Your task to perform on an android device: Open network settings Image 0: 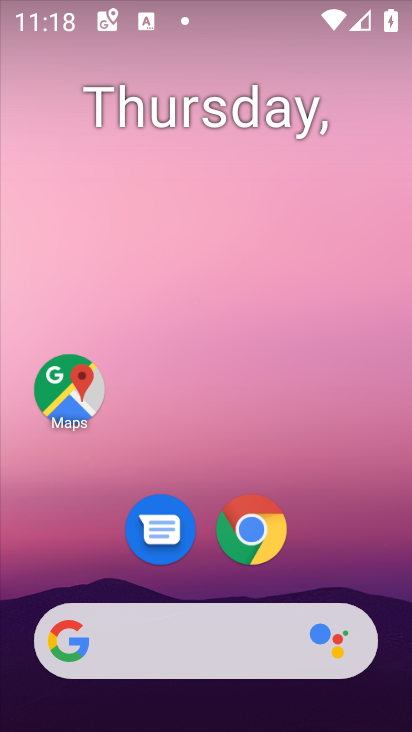
Step 0: drag from (218, 688) to (363, 93)
Your task to perform on an android device: Open network settings Image 1: 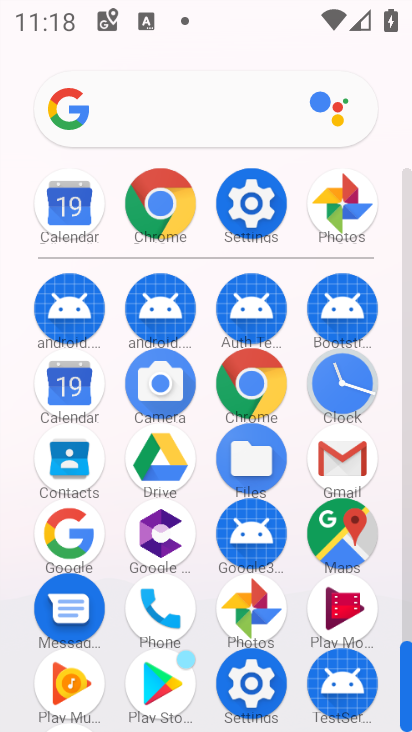
Step 1: click (260, 213)
Your task to perform on an android device: Open network settings Image 2: 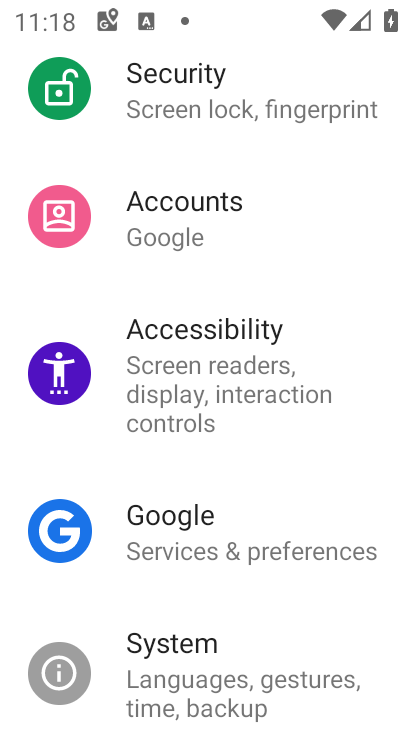
Step 2: drag from (273, 353) to (252, 654)
Your task to perform on an android device: Open network settings Image 3: 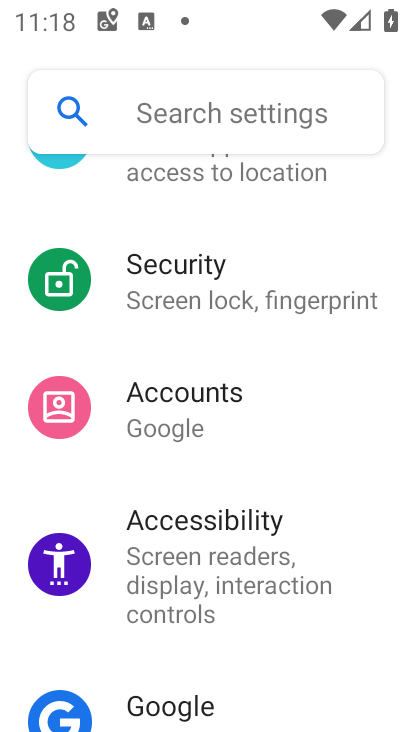
Step 3: drag from (266, 381) to (289, 729)
Your task to perform on an android device: Open network settings Image 4: 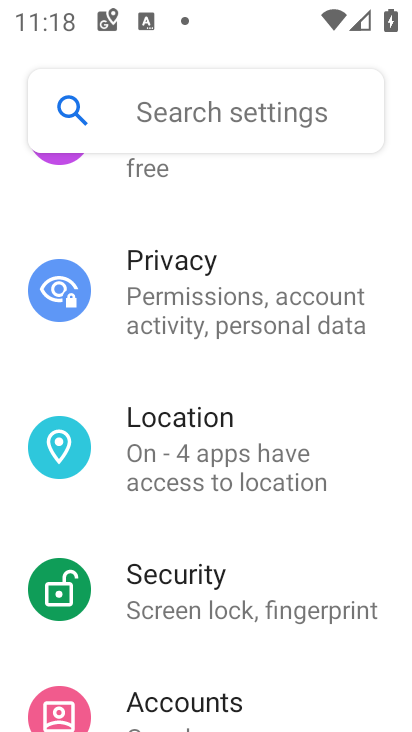
Step 4: drag from (282, 403) to (293, 728)
Your task to perform on an android device: Open network settings Image 5: 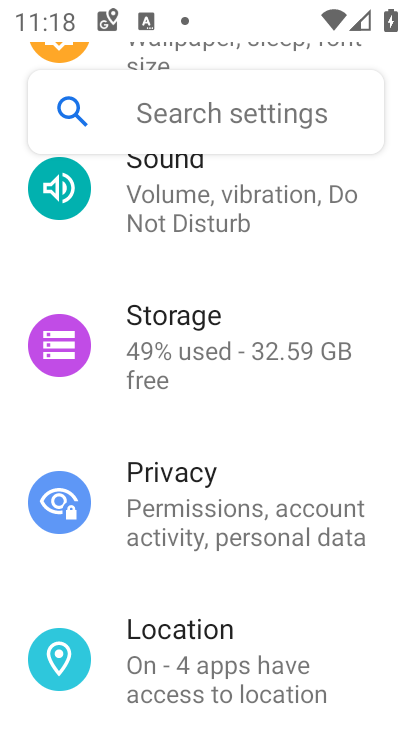
Step 5: drag from (280, 430) to (214, 719)
Your task to perform on an android device: Open network settings Image 6: 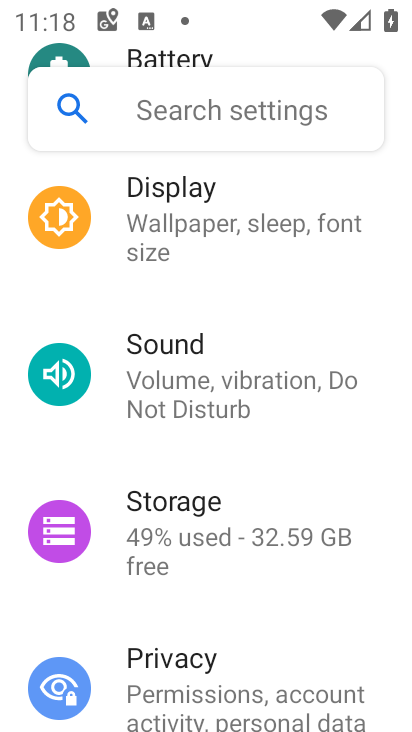
Step 6: drag from (216, 458) to (203, 717)
Your task to perform on an android device: Open network settings Image 7: 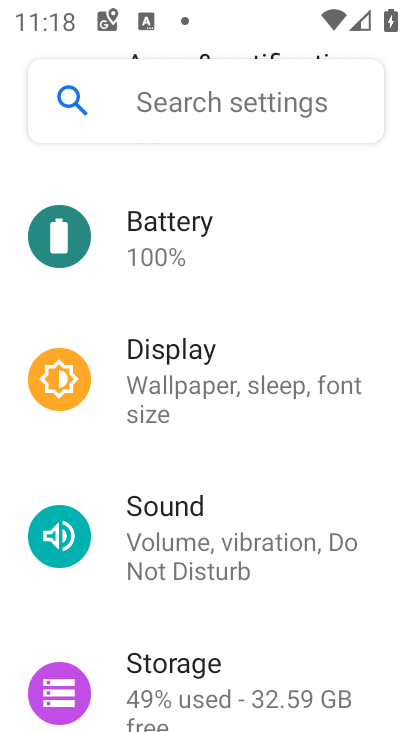
Step 7: drag from (229, 440) to (244, 711)
Your task to perform on an android device: Open network settings Image 8: 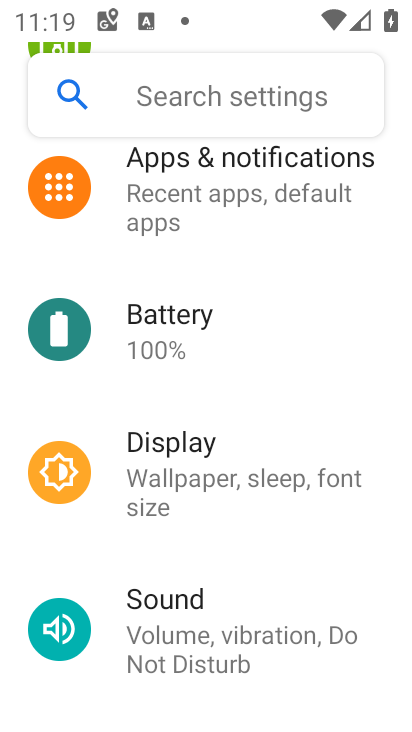
Step 8: drag from (229, 337) to (245, 653)
Your task to perform on an android device: Open network settings Image 9: 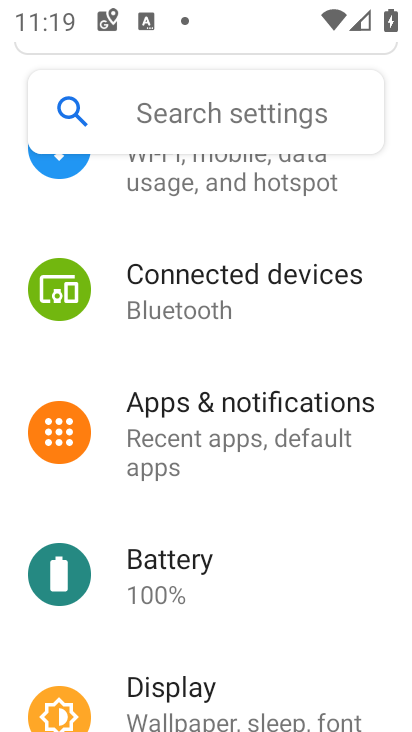
Step 9: drag from (248, 359) to (262, 679)
Your task to perform on an android device: Open network settings Image 10: 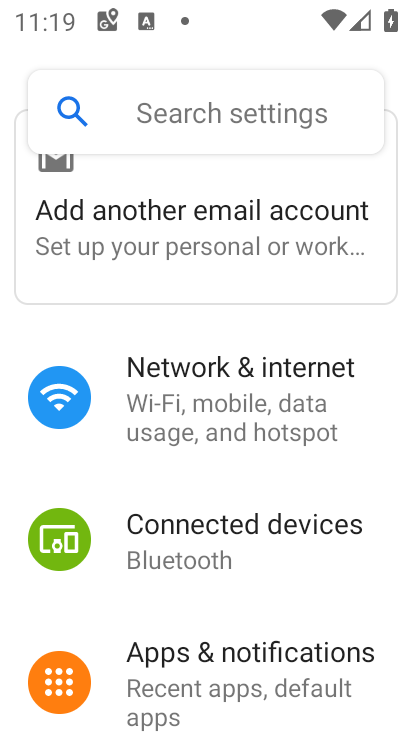
Step 10: drag from (251, 366) to (267, 599)
Your task to perform on an android device: Open network settings Image 11: 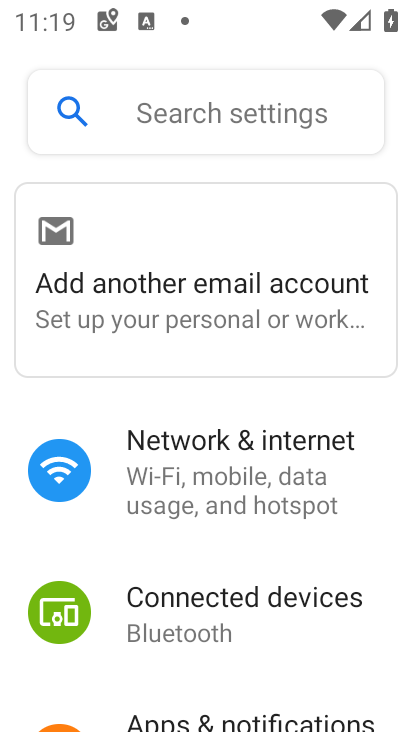
Step 11: click (289, 485)
Your task to perform on an android device: Open network settings Image 12: 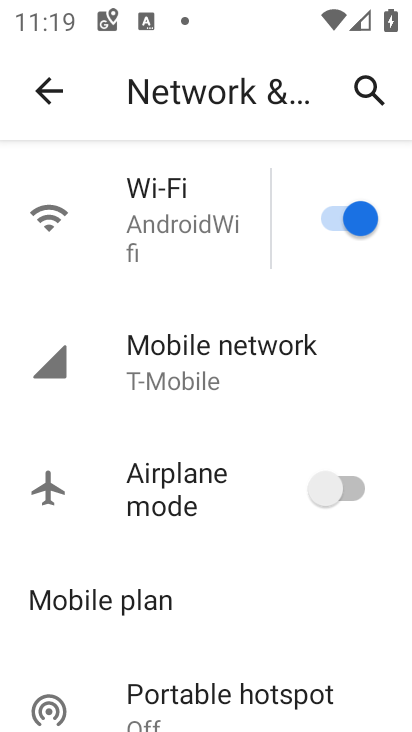
Step 12: click (228, 383)
Your task to perform on an android device: Open network settings Image 13: 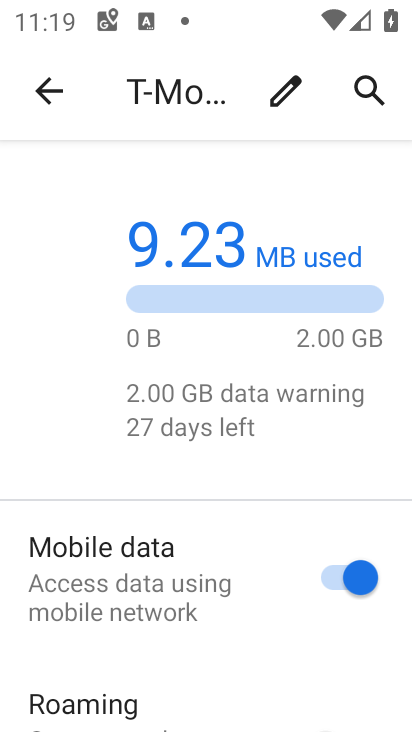
Step 13: press home button
Your task to perform on an android device: Open network settings Image 14: 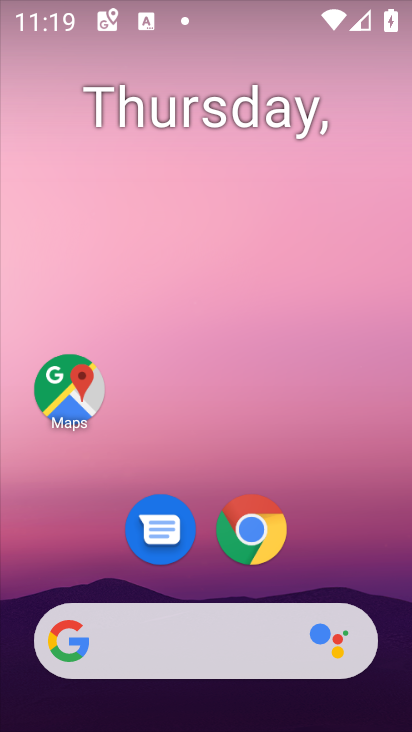
Step 14: drag from (243, 626) to (361, 41)
Your task to perform on an android device: Open network settings Image 15: 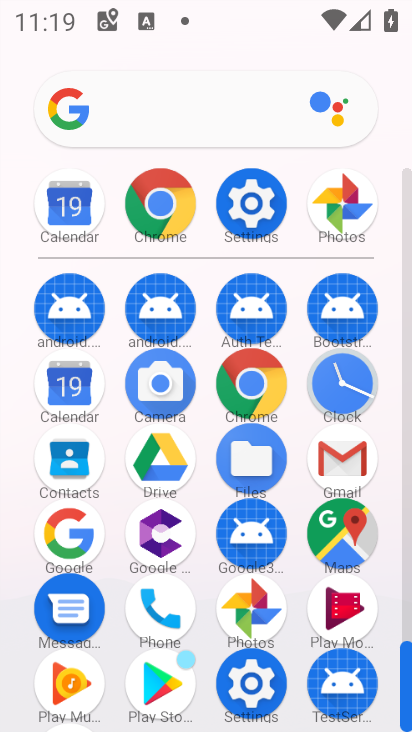
Step 15: click (258, 222)
Your task to perform on an android device: Open network settings Image 16: 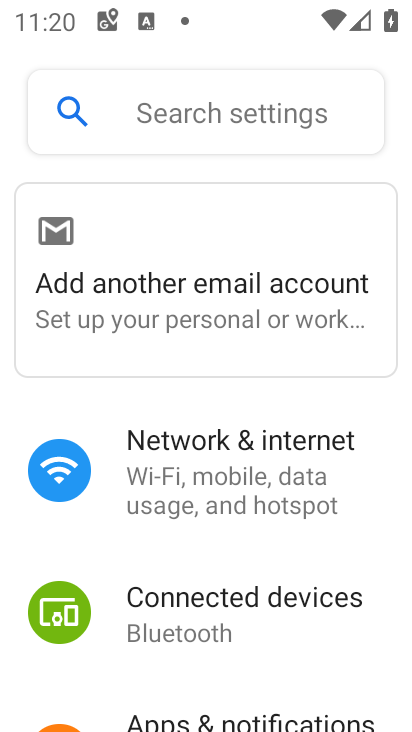
Step 16: click (282, 466)
Your task to perform on an android device: Open network settings Image 17: 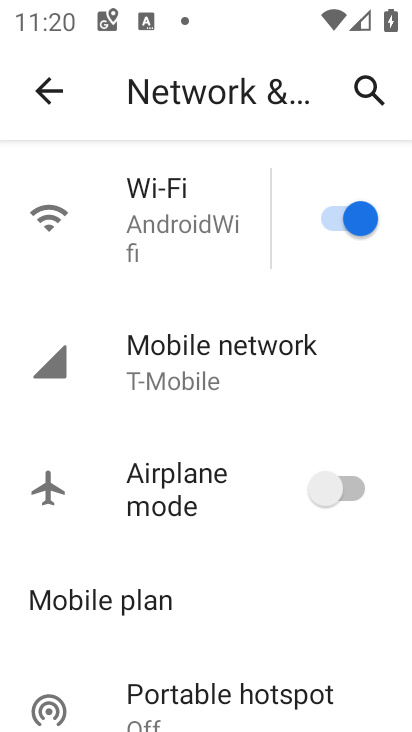
Step 17: click (217, 370)
Your task to perform on an android device: Open network settings Image 18: 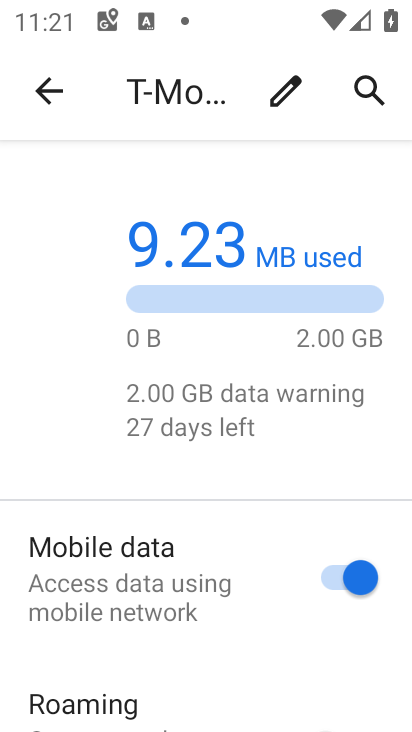
Step 18: drag from (187, 463) to (183, 86)
Your task to perform on an android device: Open network settings Image 19: 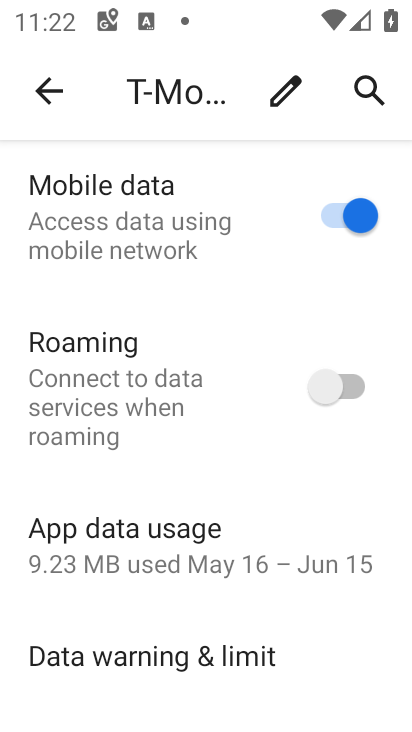
Step 19: click (238, 542)
Your task to perform on an android device: Open network settings Image 20: 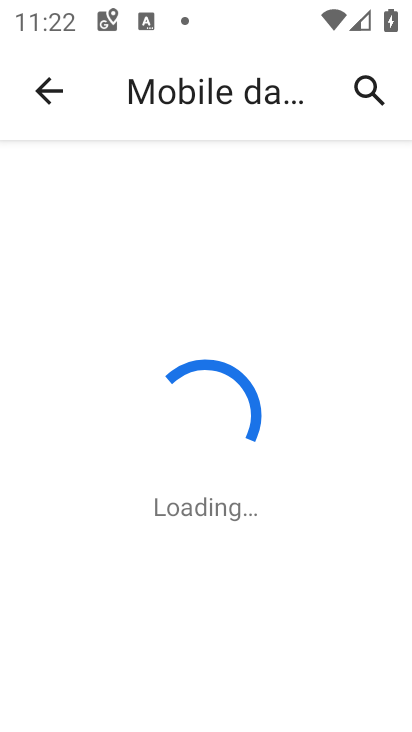
Step 20: task complete